Your task to perform on an android device: Open Android settings Image 0: 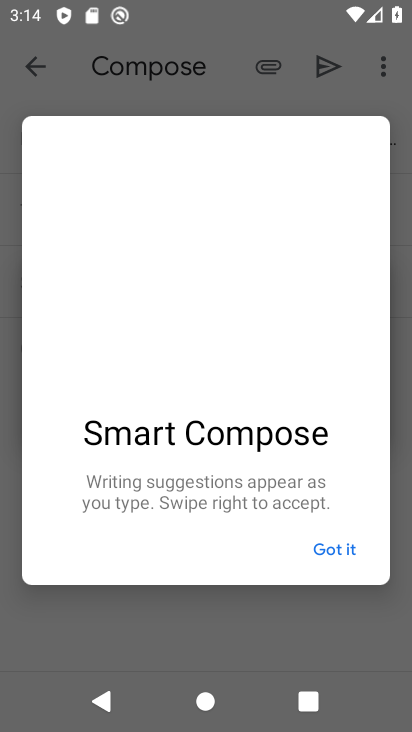
Step 0: press home button
Your task to perform on an android device: Open Android settings Image 1: 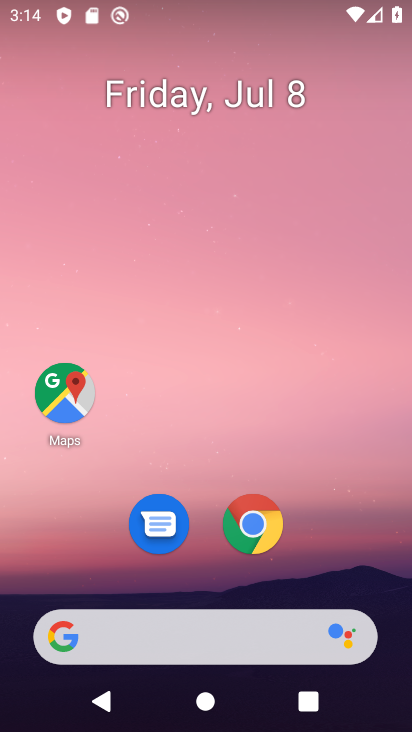
Step 1: drag from (359, 572) to (262, 10)
Your task to perform on an android device: Open Android settings Image 2: 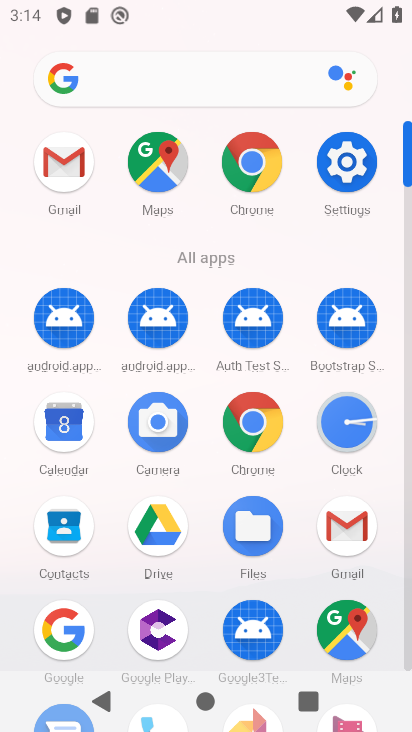
Step 2: click (350, 147)
Your task to perform on an android device: Open Android settings Image 3: 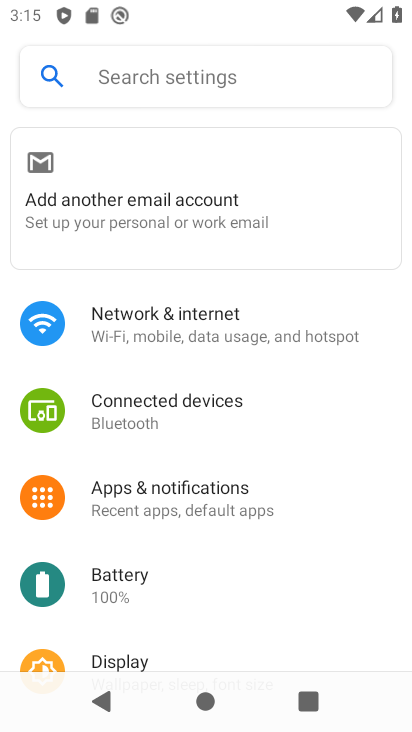
Step 3: click (274, 383)
Your task to perform on an android device: Open Android settings Image 4: 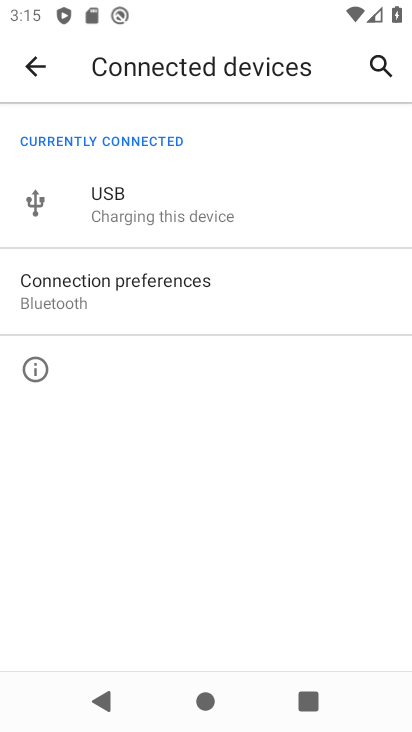
Step 4: click (41, 58)
Your task to perform on an android device: Open Android settings Image 5: 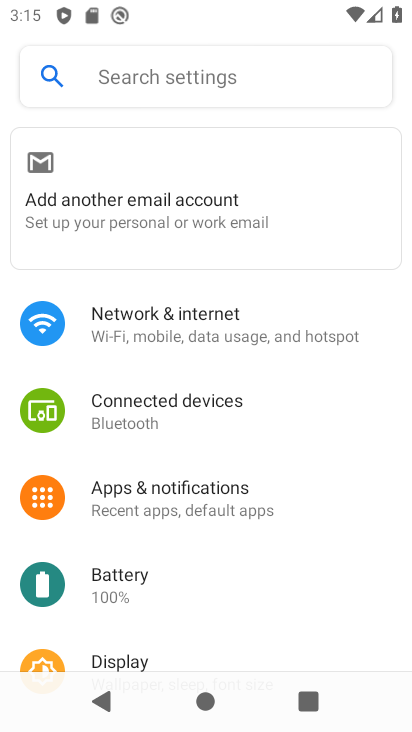
Step 5: drag from (250, 625) to (201, 118)
Your task to perform on an android device: Open Android settings Image 6: 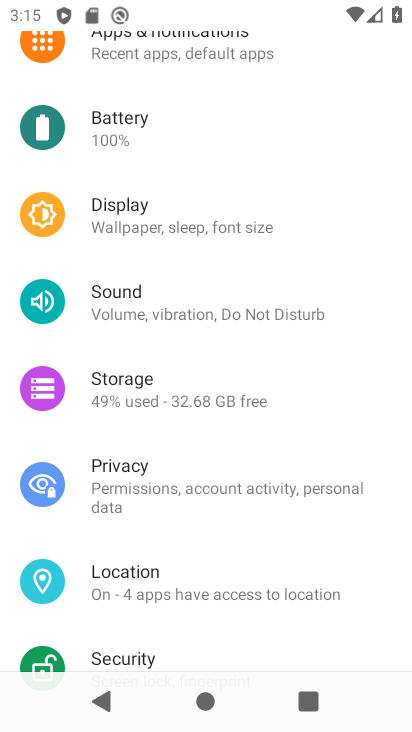
Step 6: drag from (270, 560) to (231, 28)
Your task to perform on an android device: Open Android settings Image 7: 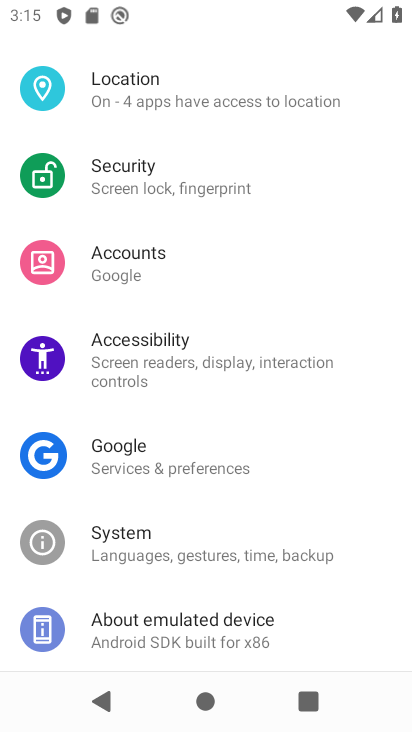
Step 7: click (260, 618)
Your task to perform on an android device: Open Android settings Image 8: 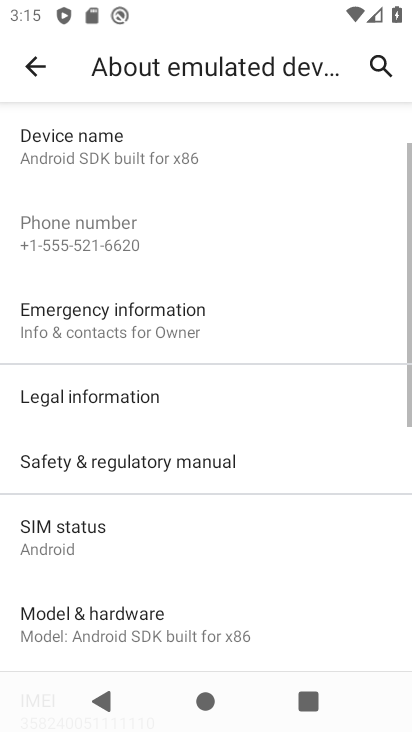
Step 8: task complete